Your task to perform on an android device: Look up the best rated pressure washer on Home Depot. Image 0: 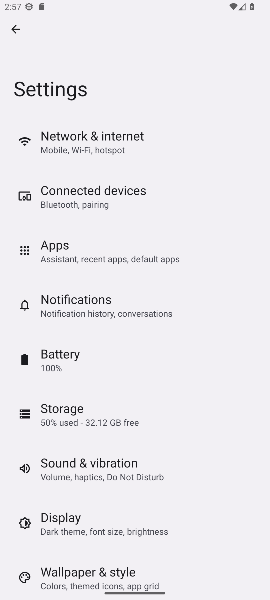
Step 0: press home button
Your task to perform on an android device: Look up the best rated pressure washer on Home Depot. Image 1: 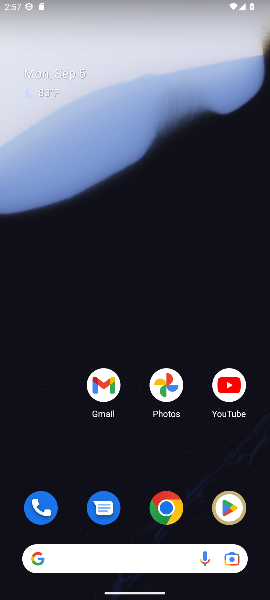
Step 1: drag from (130, 510) to (130, 103)
Your task to perform on an android device: Look up the best rated pressure washer on Home Depot. Image 2: 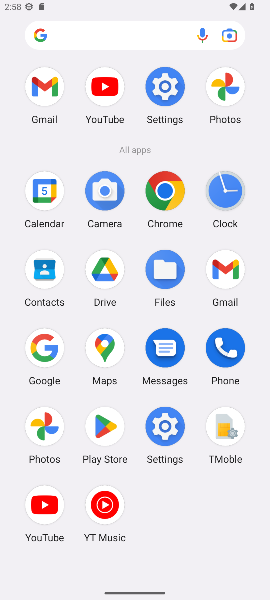
Step 2: click (44, 350)
Your task to perform on an android device: Look up the best rated pressure washer on Home Depot. Image 3: 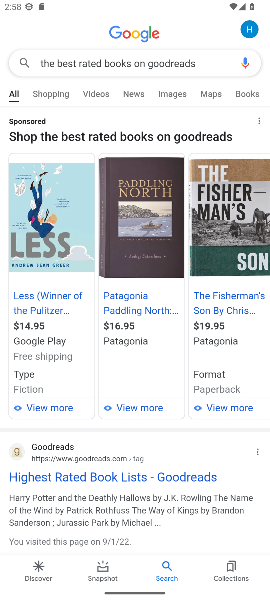
Step 3: click (208, 58)
Your task to perform on an android device: Look up the best rated pressure washer on Home Depot. Image 4: 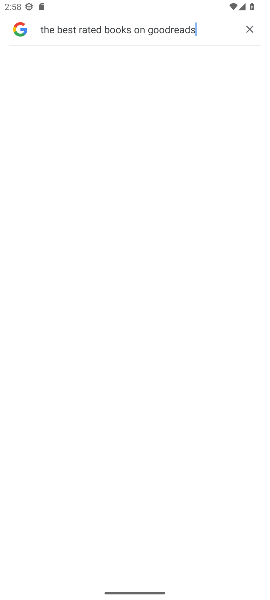
Step 4: click (208, 58)
Your task to perform on an android device: Look up the best rated pressure washer on Home Depot. Image 5: 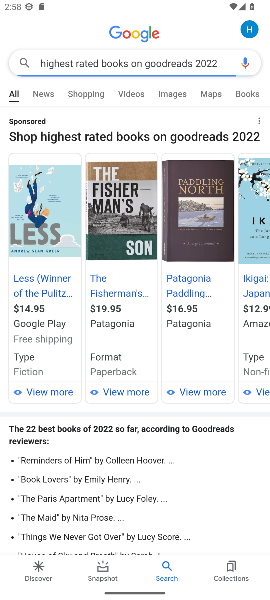
Step 5: click (224, 56)
Your task to perform on an android device: Look up the best rated pressure washer on Home Depot. Image 6: 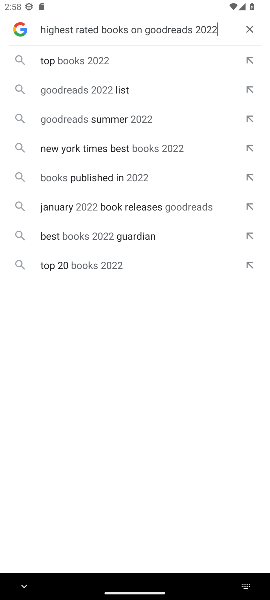
Step 6: click (246, 29)
Your task to perform on an android device: Look up the best rated pressure washer on Home Depot. Image 7: 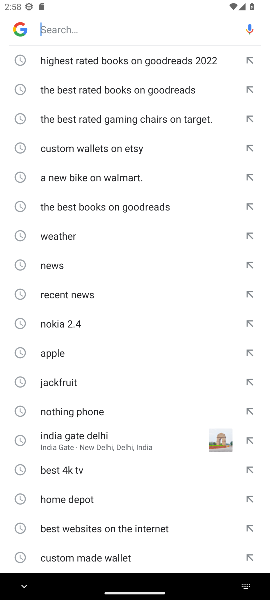
Step 7: type "the best rated pressure washer on Home Depot"
Your task to perform on an android device: Look up the best rated pressure washer on Home Depot. Image 8: 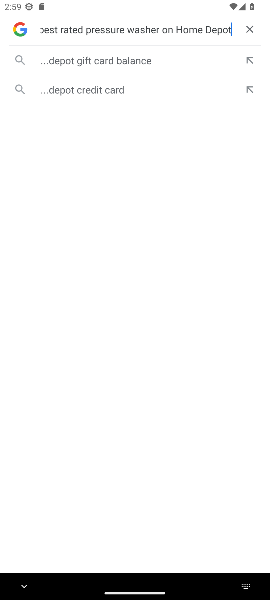
Step 8: click (147, 67)
Your task to perform on an android device: Look up the best rated pressure washer on Home Depot. Image 9: 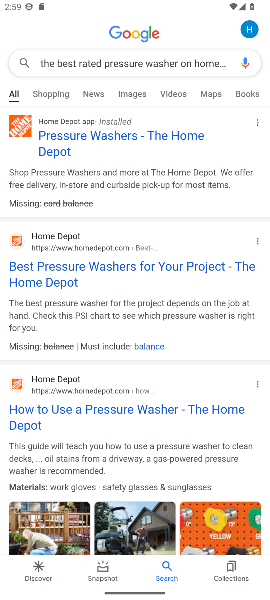
Step 9: task complete